Your task to perform on an android device: toggle sleep mode Image 0: 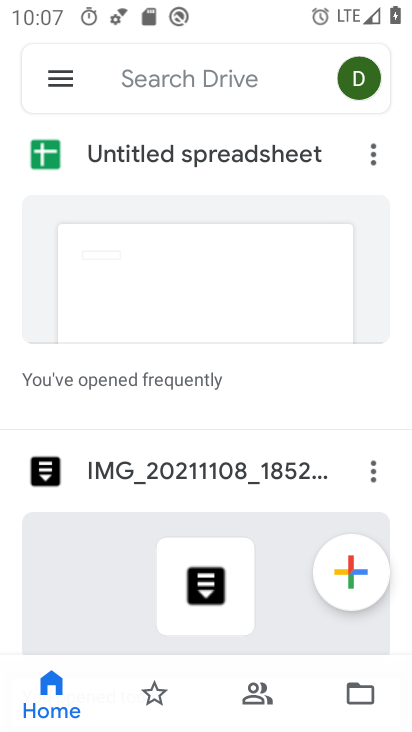
Step 0: press home button
Your task to perform on an android device: toggle sleep mode Image 1: 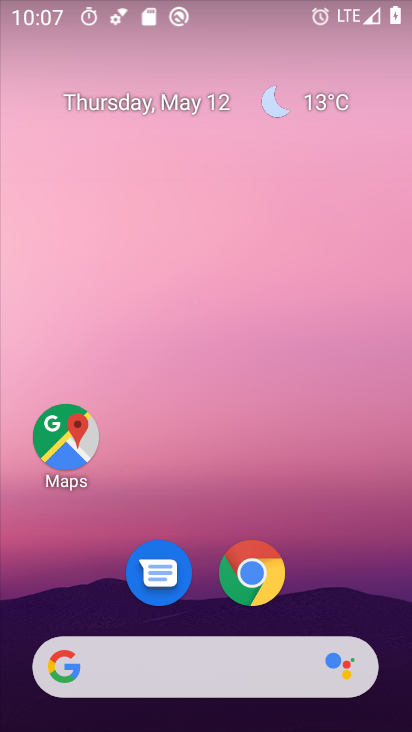
Step 1: drag from (407, 602) to (412, 220)
Your task to perform on an android device: toggle sleep mode Image 2: 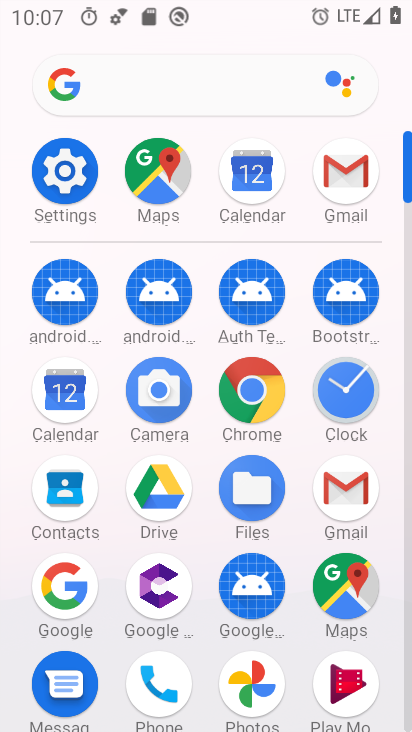
Step 2: click (73, 170)
Your task to perform on an android device: toggle sleep mode Image 3: 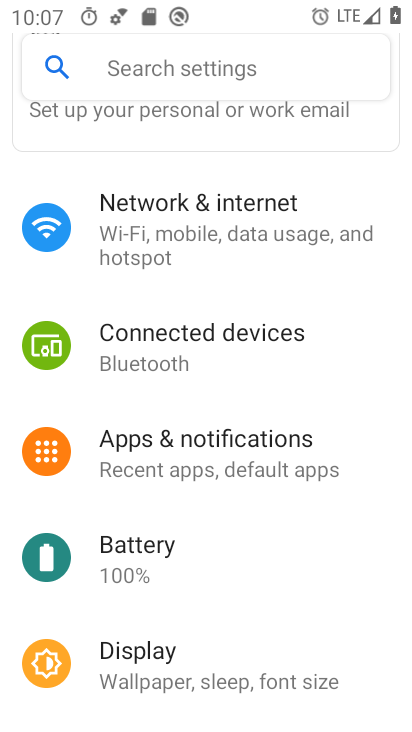
Step 3: click (145, 653)
Your task to perform on an android device: toggle sleep mode Image 4: 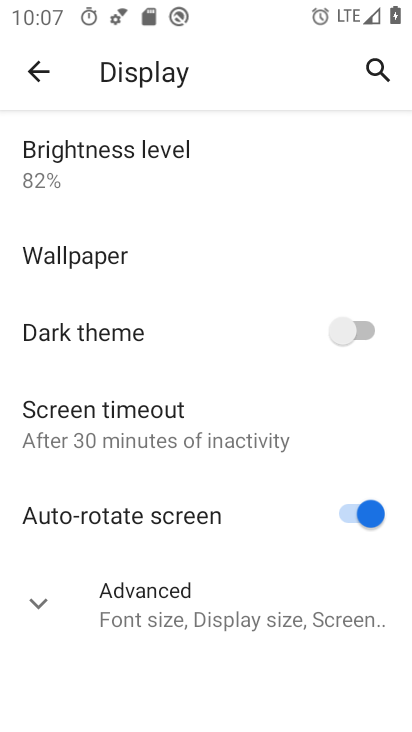
Step 4: click (153, 417)
Your task to perform on an android device: toggle sleep mode Image 5: 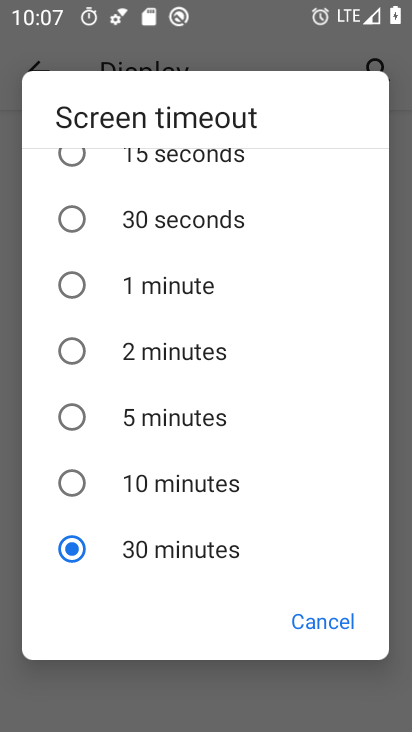
Step 5: click (76, 475)
Your task to perform on an android device: toggle sleep mode Image 6: 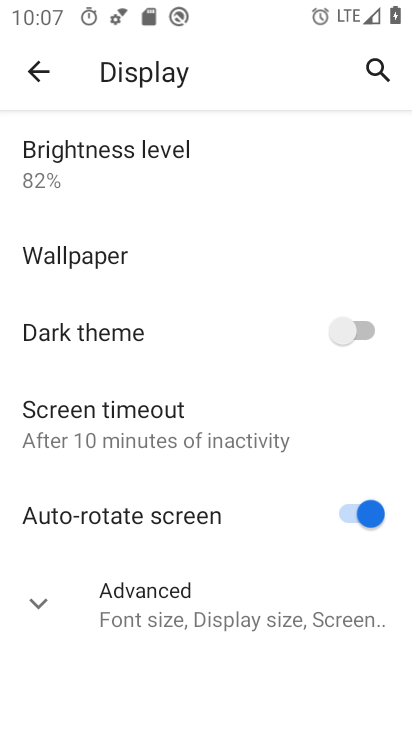
Step 6: task complete